Your task to perform on an android device: read, delete, or share a saved page in the chrome app Image 0: 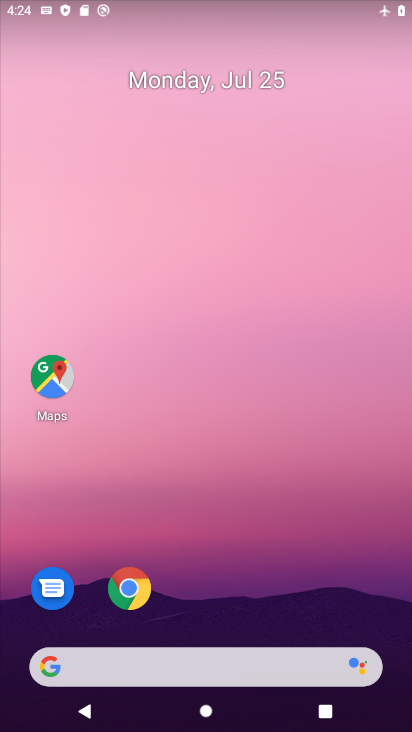
Step 0: drag from (240, 672) to (242, 319)
Your task to perform on an android device: read, delete, or share a saved page in the chrome app Image 1: 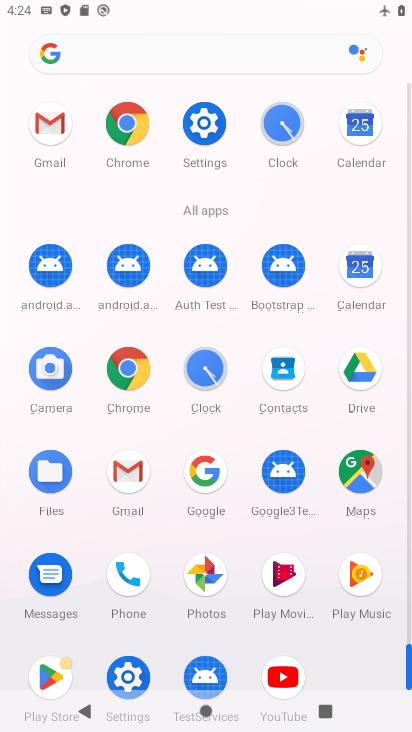
Step 1: drag from (230, 600) to (142, 23)
Your task to perform on an android device: read, delete, or share a saved page in the chrome app Image 2: 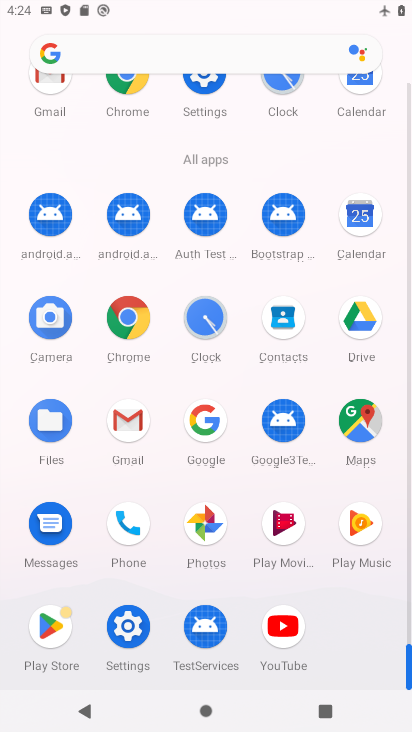
Step 2: click (128, 327)
Your task to perform on an android device: read, delete, or share a saved page in the chrome app Image 3: 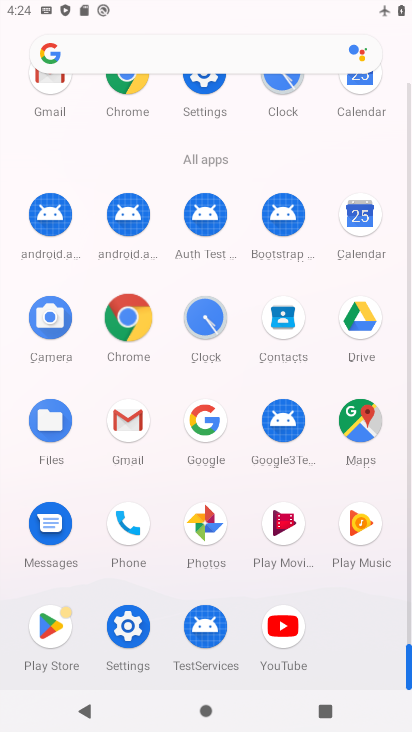
Step 3: click (128, 326)
Your task to perform on an android device: read, delete, or share a saved page in the chrome app Image 4: 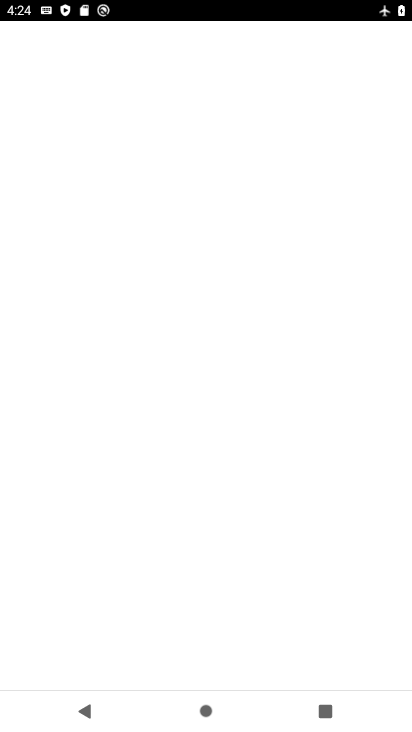
Step 4: click (129, 323)
Your task to perform on an android device: read, delete, or share a saved page in the chrome app Image 5: 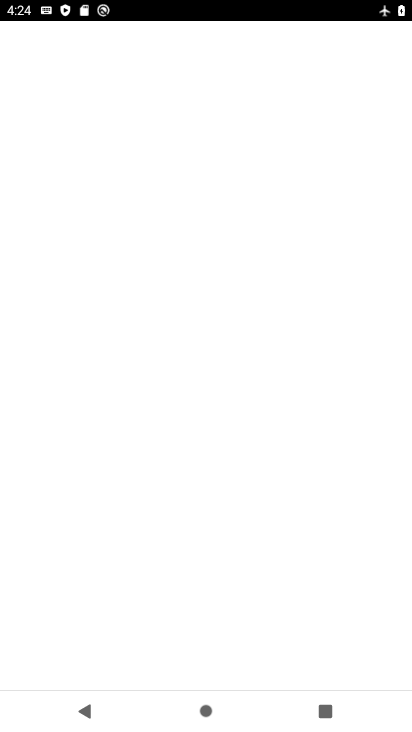
Step 5: click (128, 322)
Your task to perform on an android device: read, delete, or share a saved page in the chrome app Image 6: 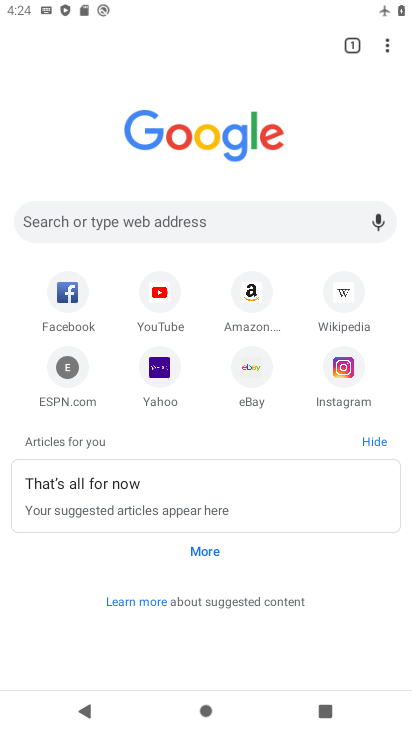
Step 6: drag from (383, 49) to (217, 303)
Your task to perform on an android device: read, delete, or share a saved page in the chrome app Image 7: 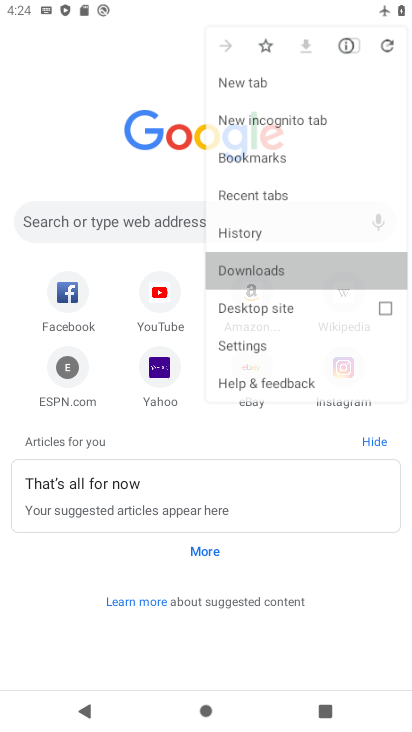
Step 7: click (216, 304)
Your task to perform on an android device: read, delete, or share a saved page in the chrome app Image 8: 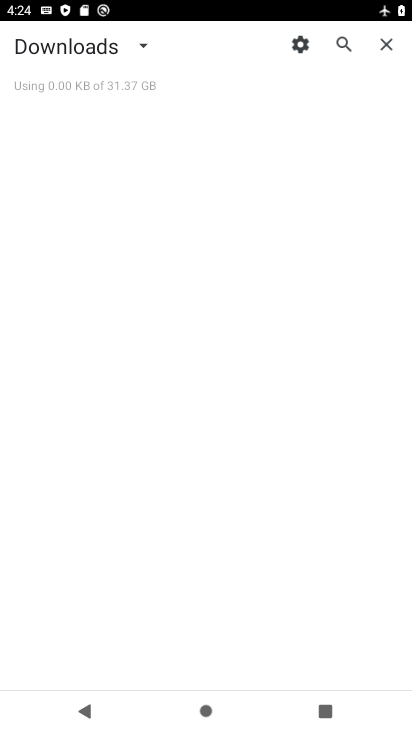
Step 8: click (134, 48)
Your task to perform on an android device: read, delete, or share a saved page in the chrome app Image 9: 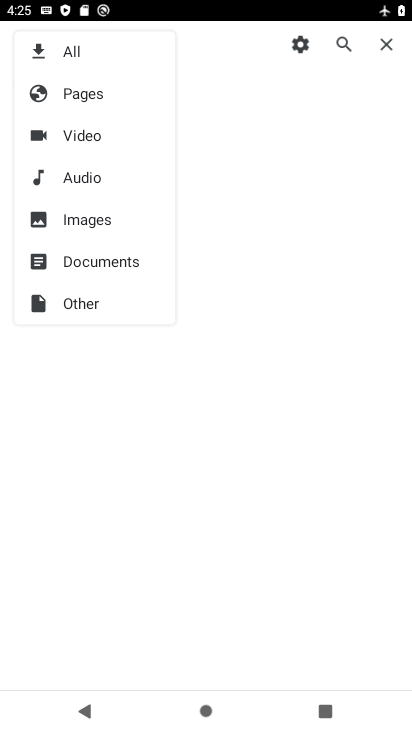
Step 9: click (77, 100)
Your task to perform on an android device: read, delete, or share a saved page in the chrome app Image 10: 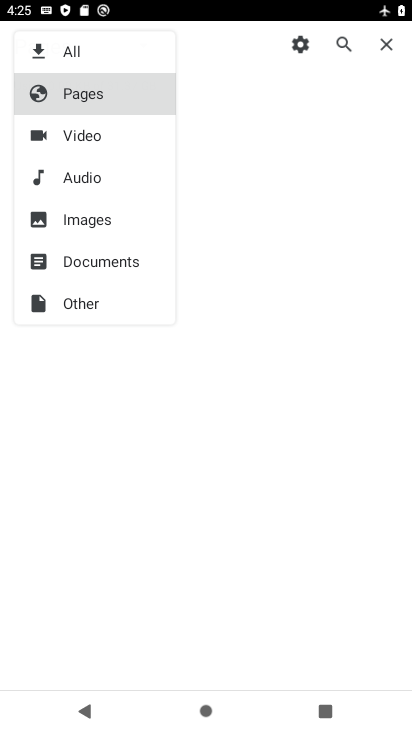
Step 10: click (88, 93)
Your task to perform on an android device: read, delete, or share a saved page in the chrome app Image 11: 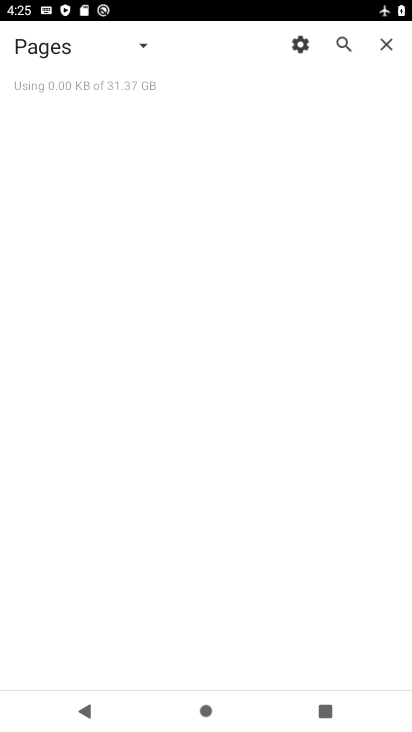
Step 11: click (88, 94)
Your task to perform on an android device: read, delete, or share a saved page in the chrome app Image 12: 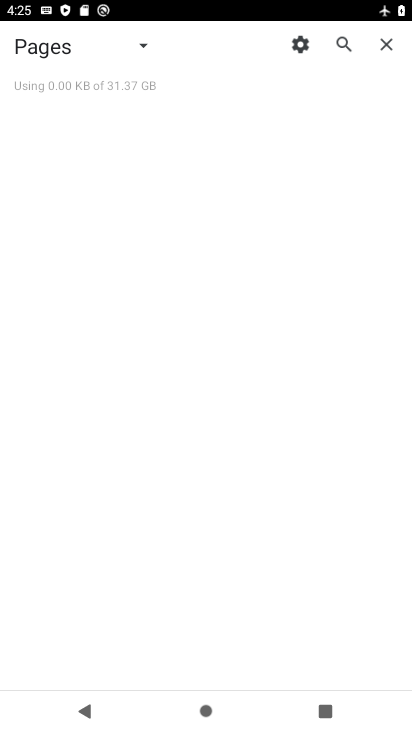
Step 12: task complete